Your task to perform on an android device: empty trash in the gmail app Image 0: 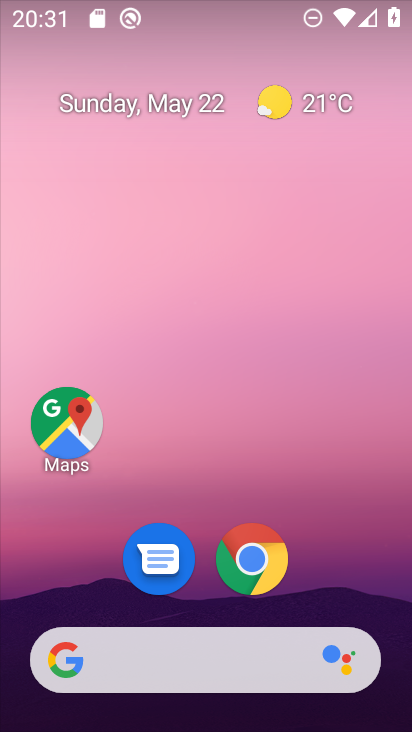
Step 0: press home button
Your task to perform on an android device: empty trash in the gmail app Image 1: 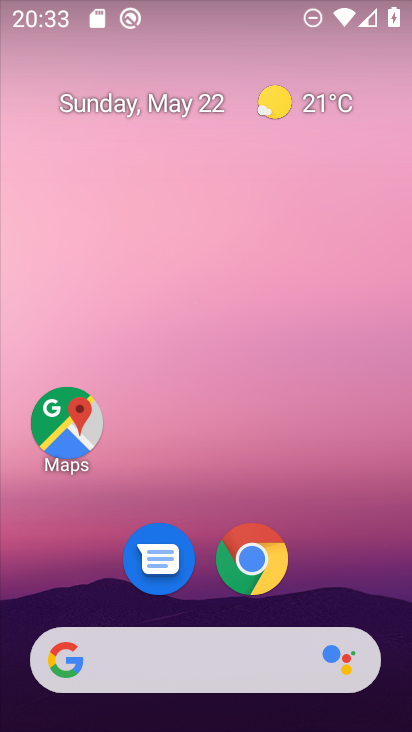
Step 1: drag from (263, 704) to (227, 220)
Your task to perform on an android device: empty trash in the gmail app Image 2: 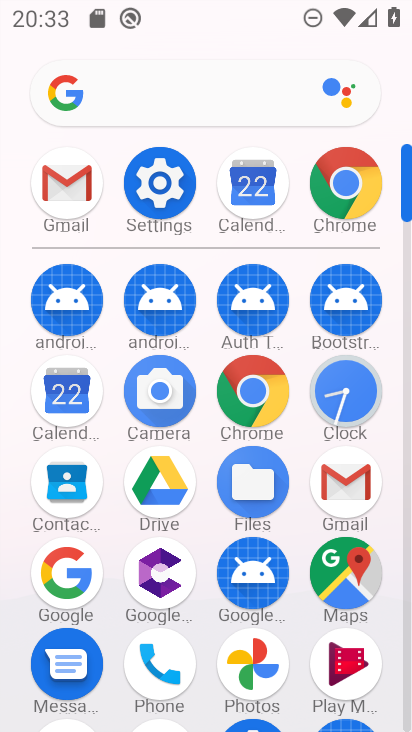
Step 2: click (65, 196)
Your task to perform on an android device: empty trash in the gmail app Image 3: 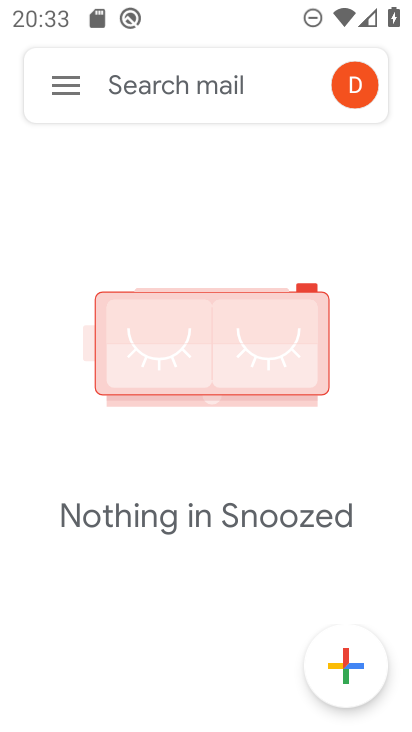
Step 3: click (68, 103)
Your task to perform on an android device: empty trash in the gmail app Image 4: 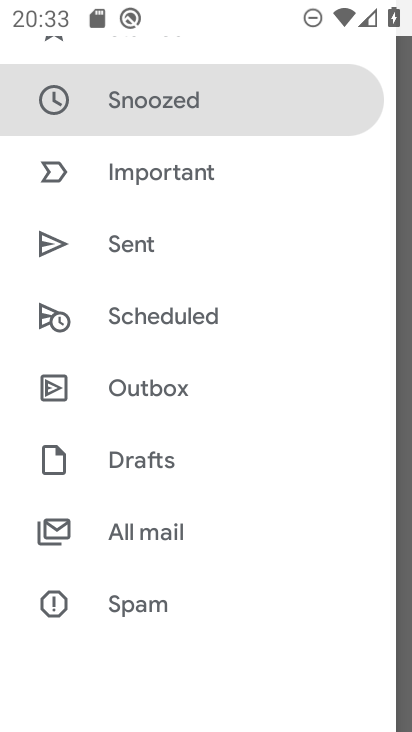
Step 4: drag from (135, 528) to (160, 365)
Your task to perform on an android device: empty trash in the gmail app Image 5: 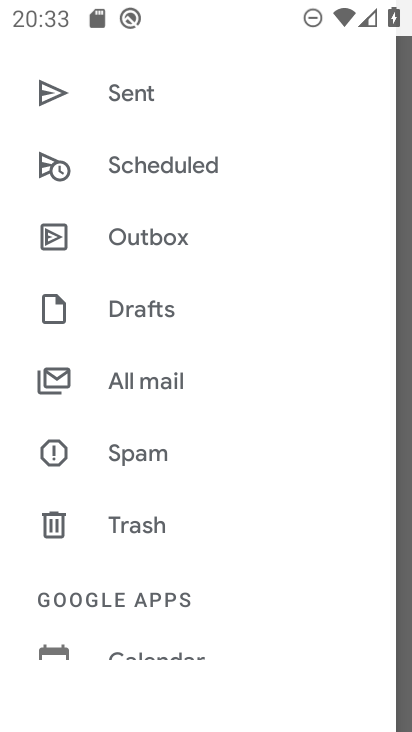
Step 5: click (134, 515)
Your task to perform on an android device: empty trash in the gmail app Image 6: 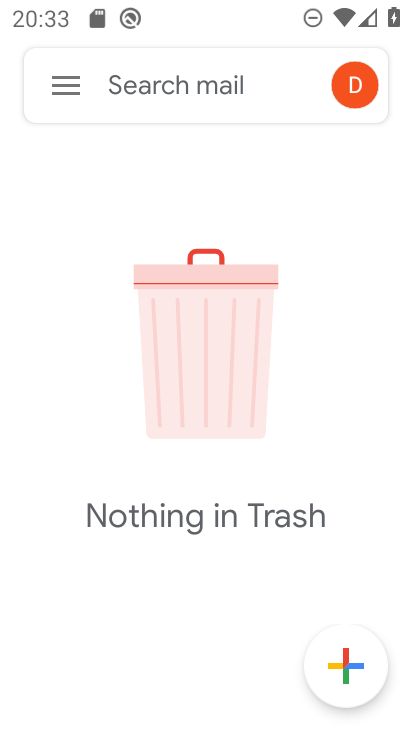
Step 6: task complete